Your task to perform on an android device: set an alarm Image 0: 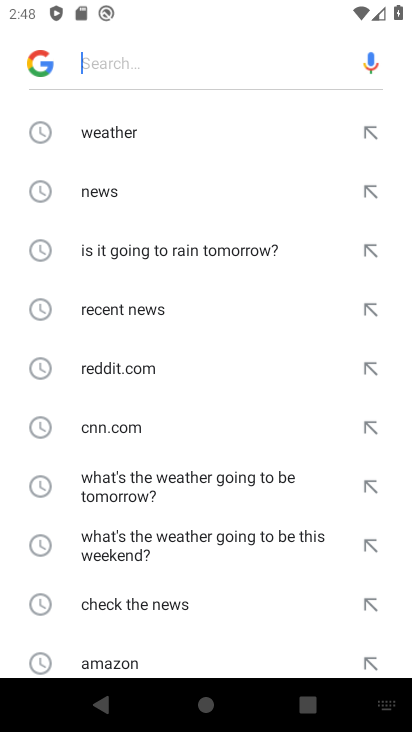
Step 0: press back button
Your task to perform on an android device: set an alarm Image 1: 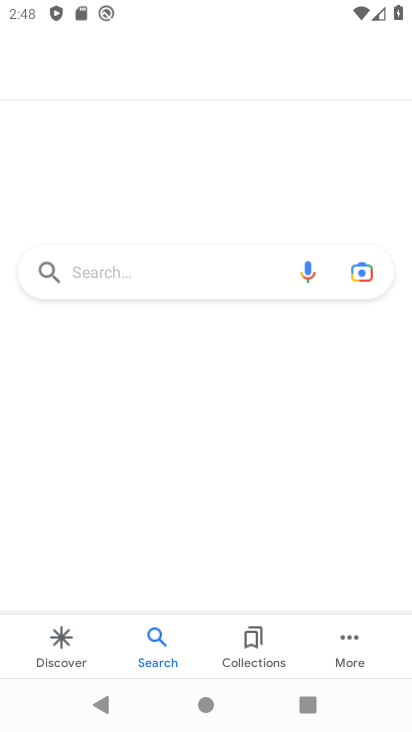
Step 1: press back button
Your task to perform on an android device: set an alarm Image 2: 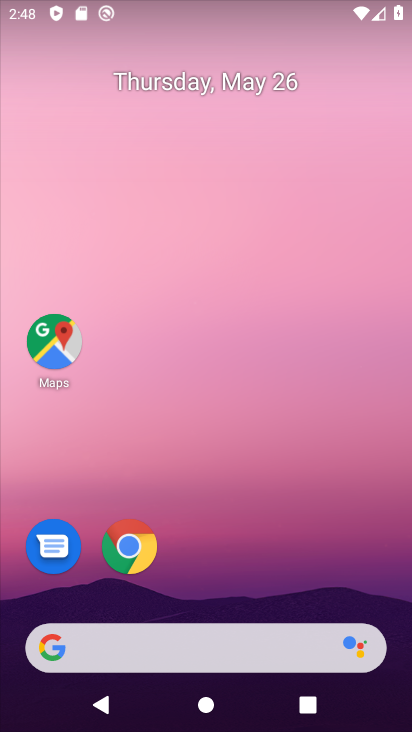
Step 2: drag from (398, 672) to (323, 292)
Your task to perform on an android device: set an alarm Image 3: 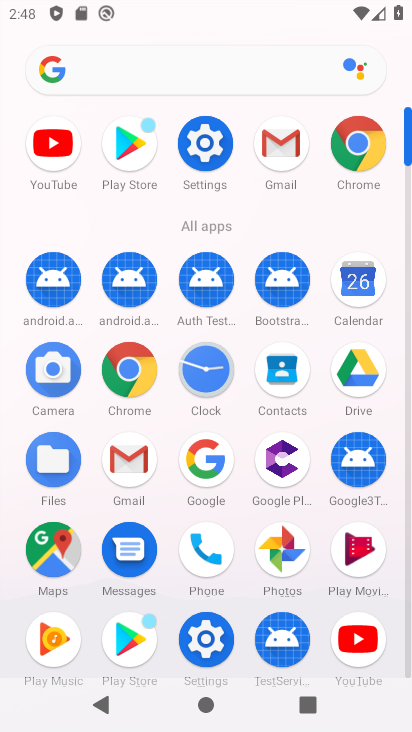
Step 3: click (204, 374)
Your task to perform on an android device: set an alarm Image 4: 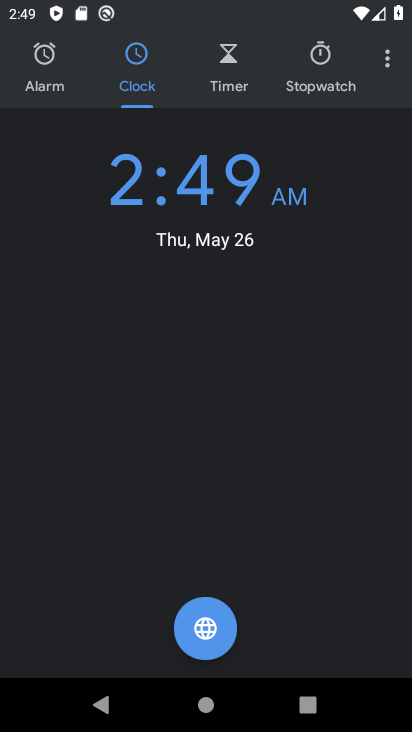
Step 4: click (40, 64)
Your task to perform on an android device: set an alarm Image 5: 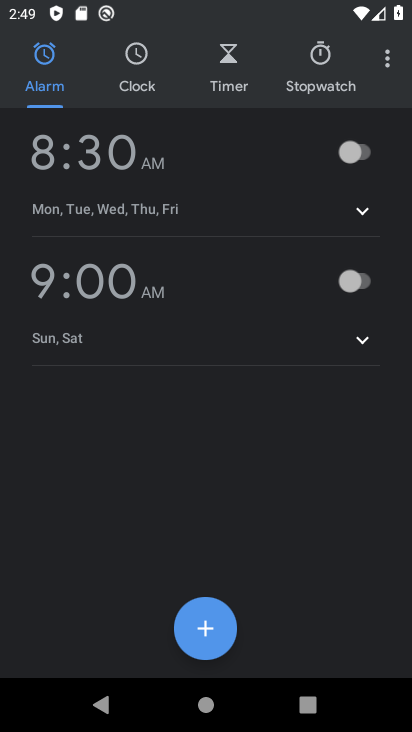
Step 5: click (354, 154)
Your task to perform on an android device: set an alarm Image 6: 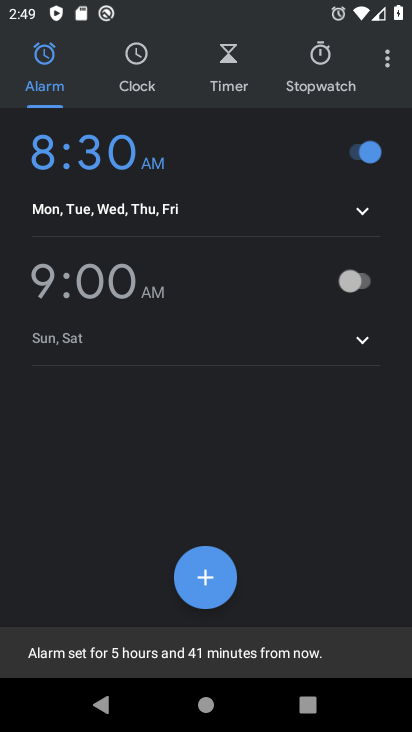
Step 6: task complete